Your task to perform on an android device: What's on my calendar tomorrow? Image 0: 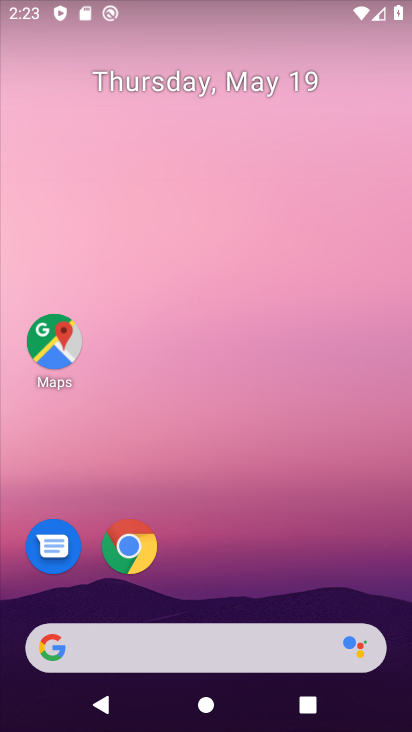
Step 0: press home button
Your task to perform on an android device: What's on my calendar tomorrow? Image 1: 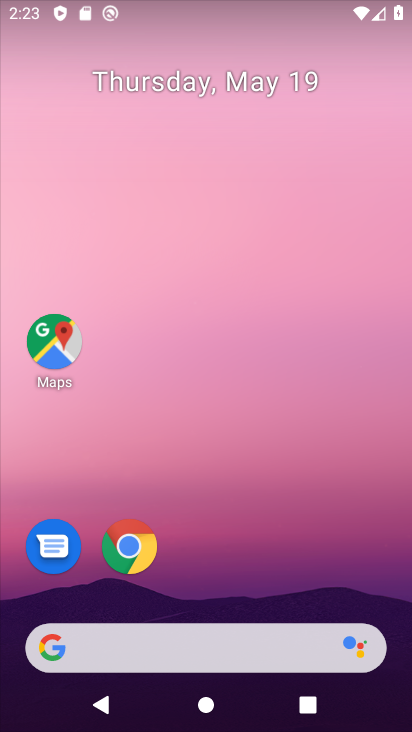
Step 1: drag from (145, 650) to (277, 189)
Your task to perform on an android device: What's on my calendar tomorrow? Image 2: 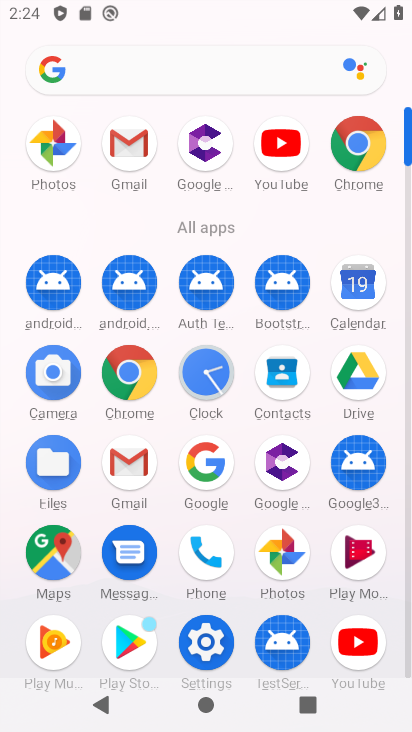
Step 2: click (373, 289)
Your task to perform on an android device: What's on my calendar tomorrow? Image 3: 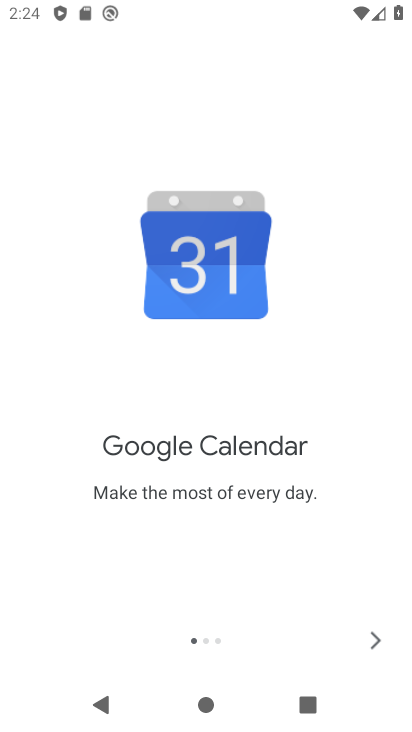
Step 3: click (379, 642)
Your task to perform on an android device: What's on my calendar tomorrow? Image 4: 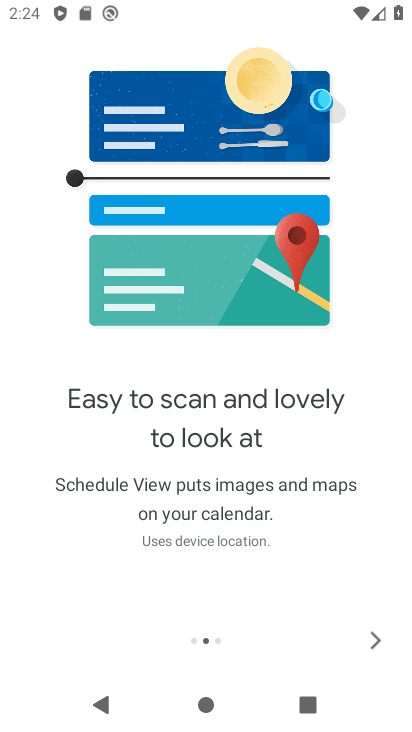
Step 4: click (379, 642)
Your task to perform on an android device: What's on my calendar tomorrow? Image 5: 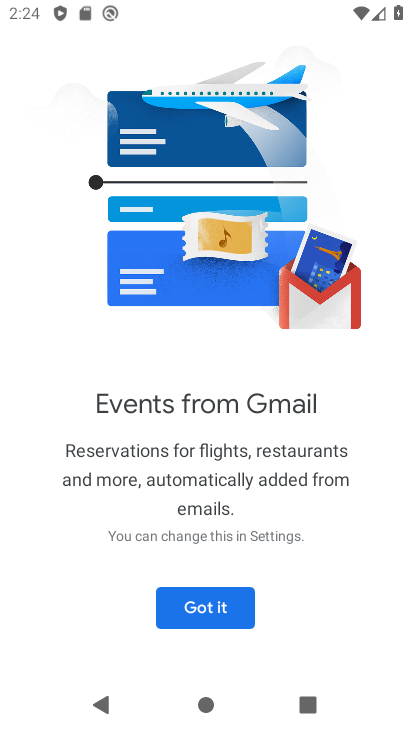
Step 5: click (200, 600)
Your task to perform on an android device: What's on my calendar tomorrow? Image 6: 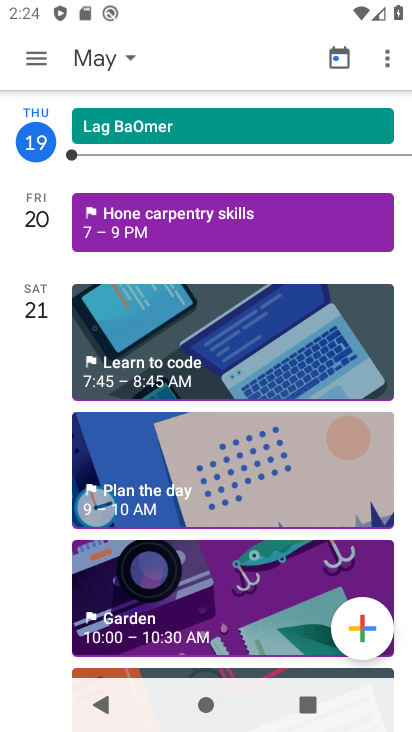
Step 6: click (84, 59)
Your task to perform on an android device: What's on my calendar tomorrow? Image 7: 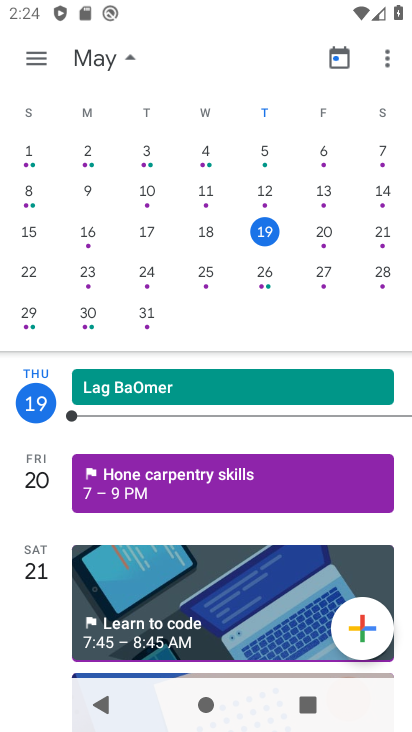
Step 7: click (330, 236)
Your task to perform on an android device: What's on my calendar tomorrow? Image 8: 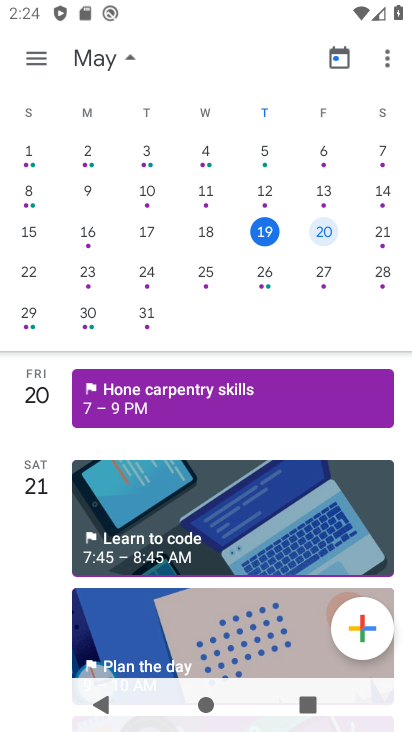
Step 8: click (44, 57)
Your task to perform on an android device: What's on my calendar tomorrow? Image 9: 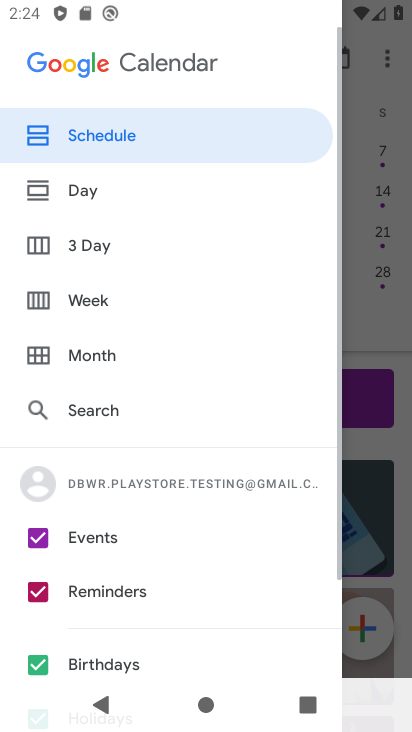
Step 9: click (119, 137)
Your task to perform on an android device: What's on my calendar tomorrow? Image 10: 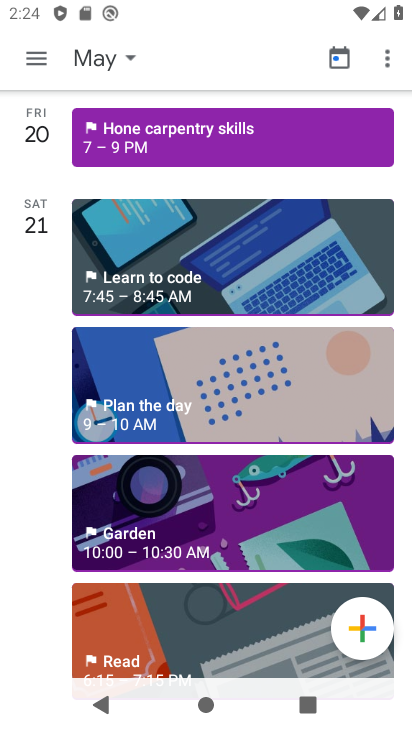
Step 10: click (171, 111)
Your task to perform on an android device: What's on my calendar tomorrow? Image 11: 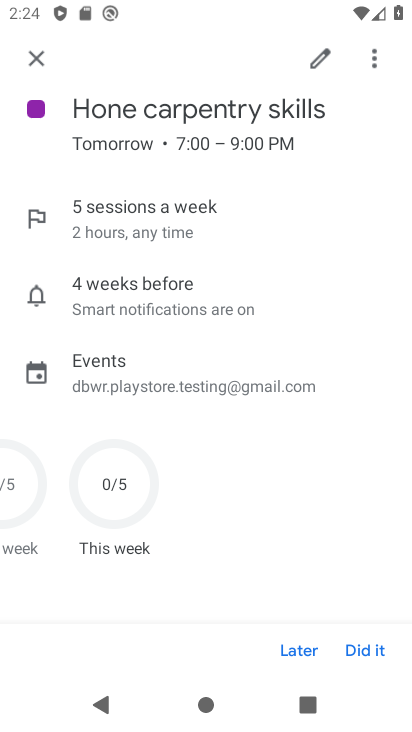
Step 11: task complete